Your task to perform on an android device: check data usage Image 0: 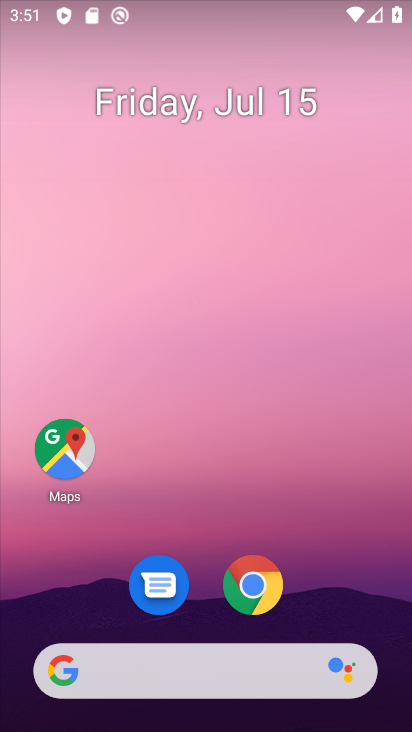
Step 0: drag from (213, 529) to (254, 53)
Your task to perform on an android device: check data usage Image 1: 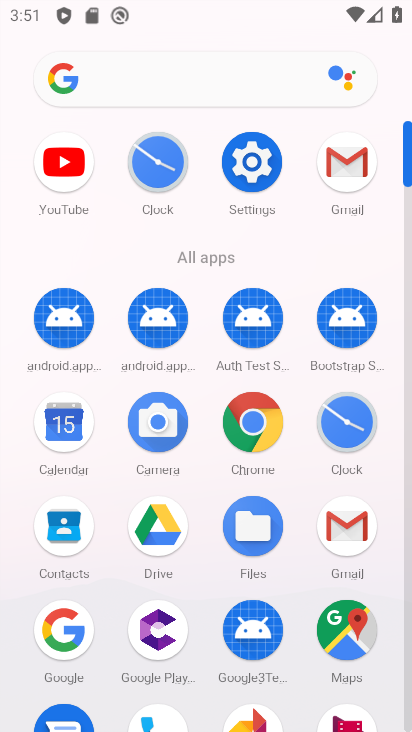
Step 1: click (250, 165)
Your task to perform on an android device: check data usage Image 2: 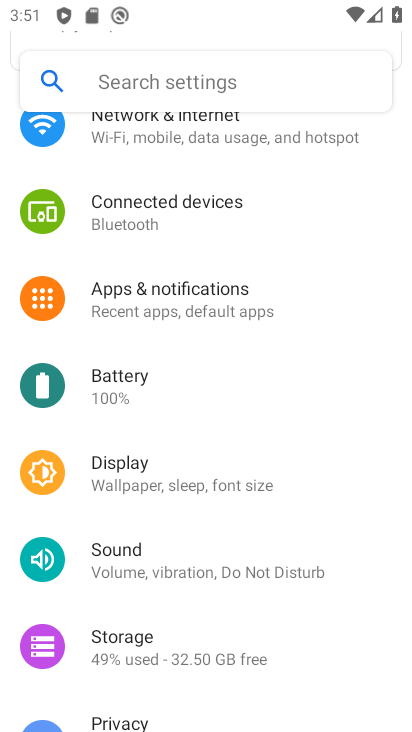
Step 2: drag from (263, 259) to (291, 613)
Your task to perform on an android device: check data usage Image 3: 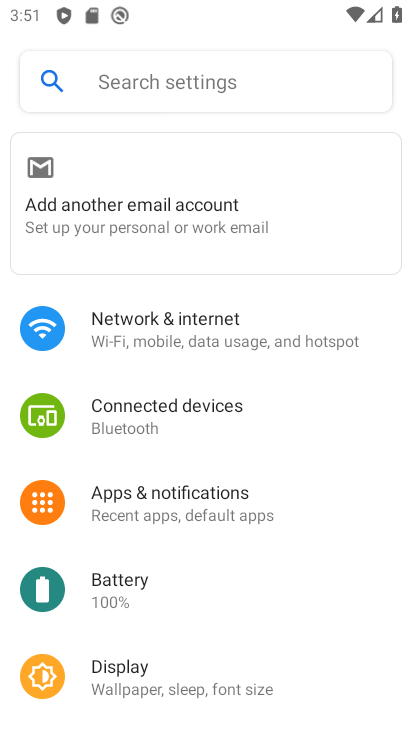
Step 3: click (234, 337)
Your task to perform on an android device: check data usage Image 4: 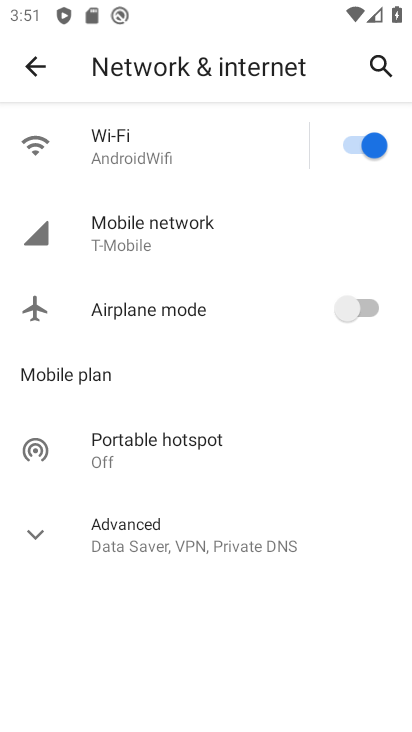
Step 4: click (196, 230)
Your task to perform on an android device: check data usage Image 5: 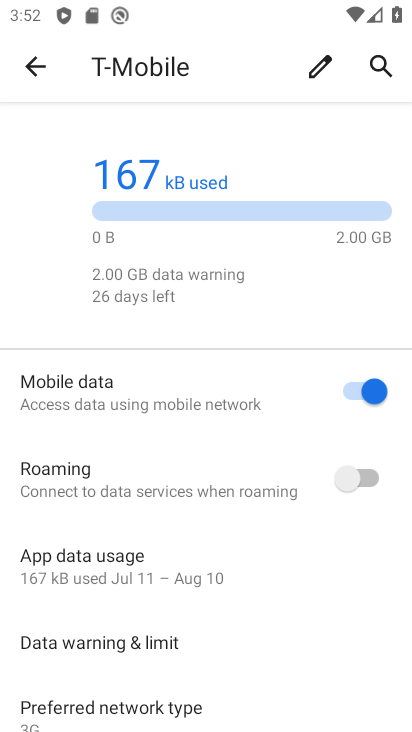
Step 5: task complete